Your task to perform on an android device: Toggle the flashlight Image 0: 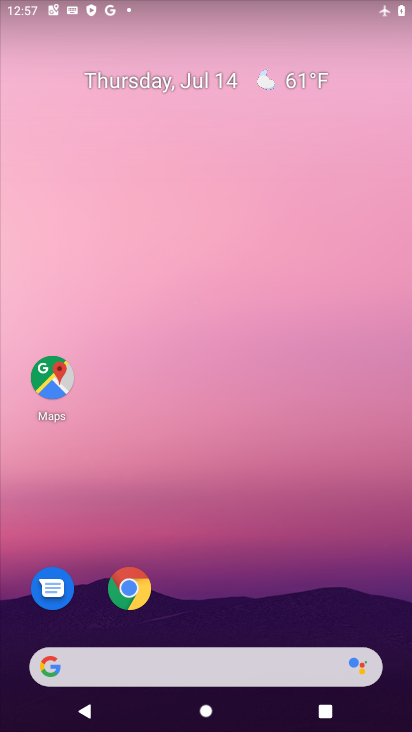
Step 0: drag from (210, 611) to (225, 9)
Your task to perform on an android device: Toggle the flashlight Image 1: 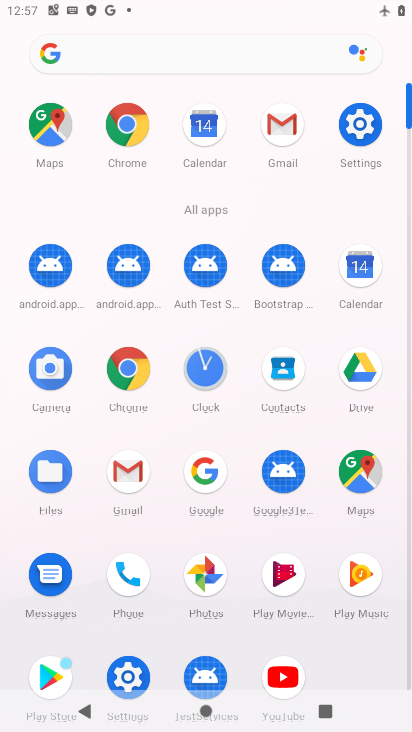
Step 1: click (370, 129)
Your task to perform on an android device: Toggle the flashlight Image 2: 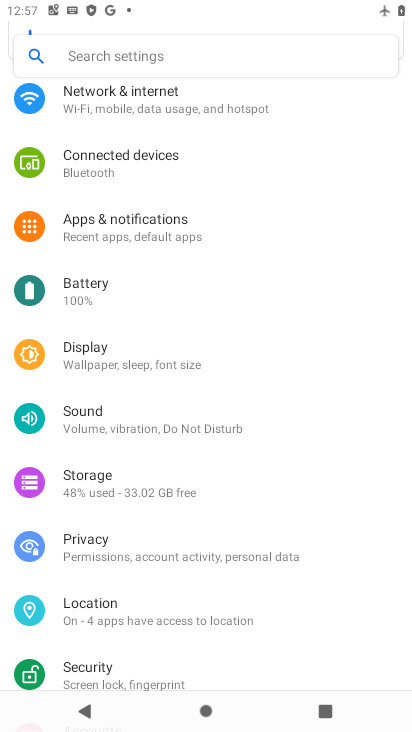
Step 2: click (193, 56)
Your task to perform on an android device: Toggle the flashlight Image 3: 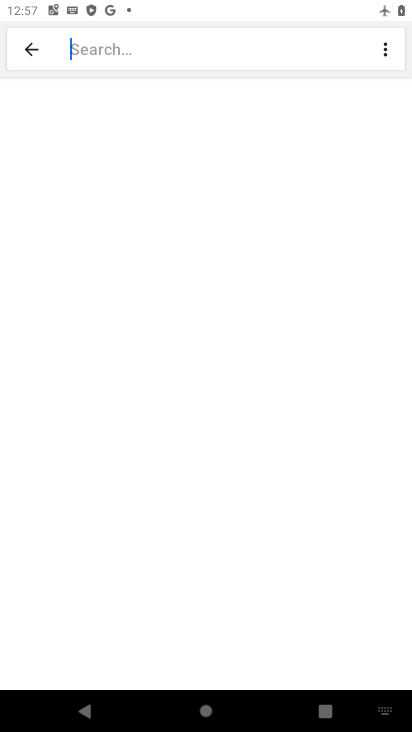
Step 3: type "flashlight"
Your task to perform on an android device: Toggle the flashlight Image 4: 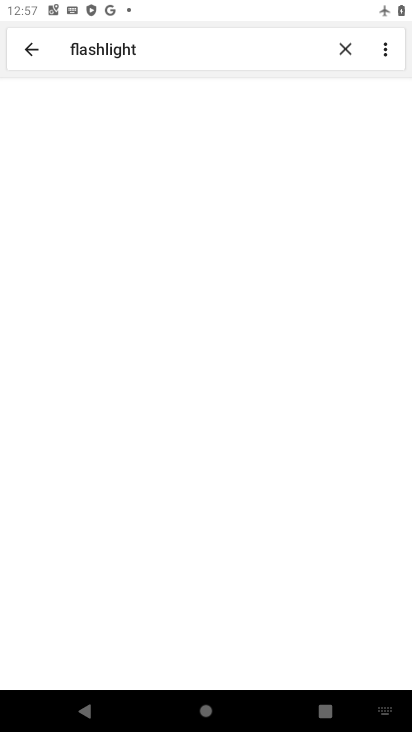
Step 4: click (140, 123)
Your task to perform on an android device: Toggle the flashlight Image 5: 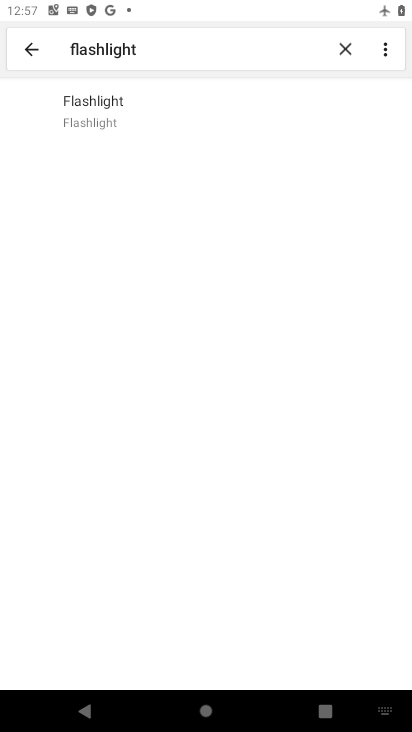
Step 5: click (132, 115)
Your task to perform on an android device: Toggle the flashlight Image 6: 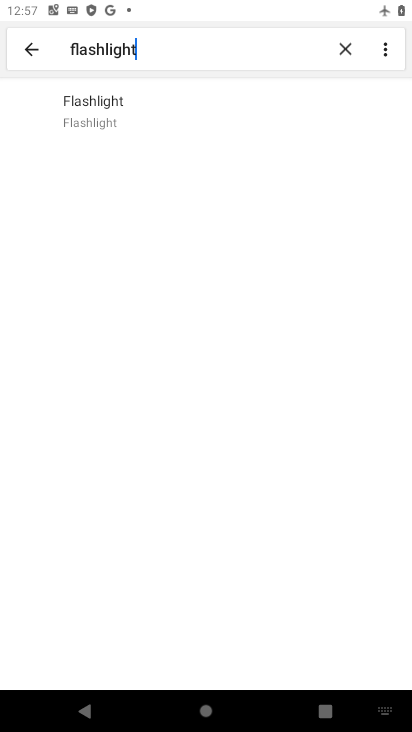
Step 6: click (134, 116)
Your task to perform on an android device: Toggle the flashlight Image 7: 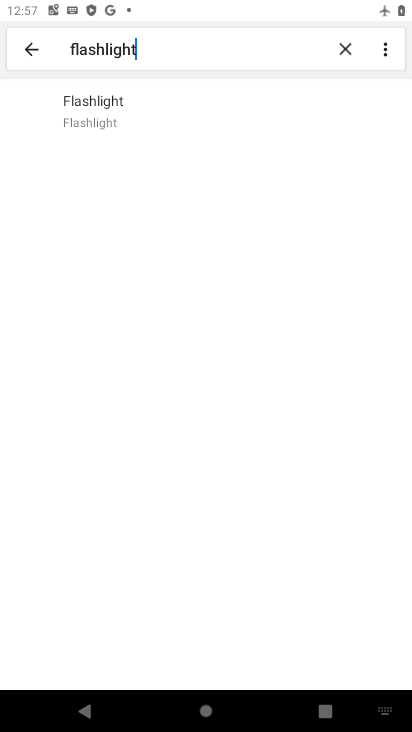
Step 7: task complete